Your task to perform on an android device: change the upload size in google photos Image 0: 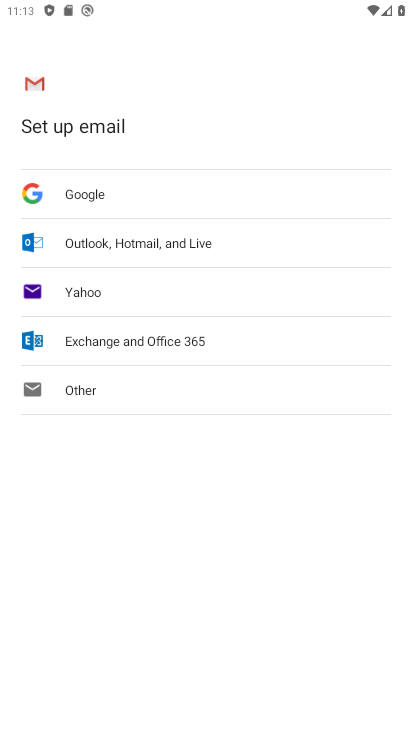
Step 0: press home button
Your task to perform on an android device: change the upload size in google photos Image 1: 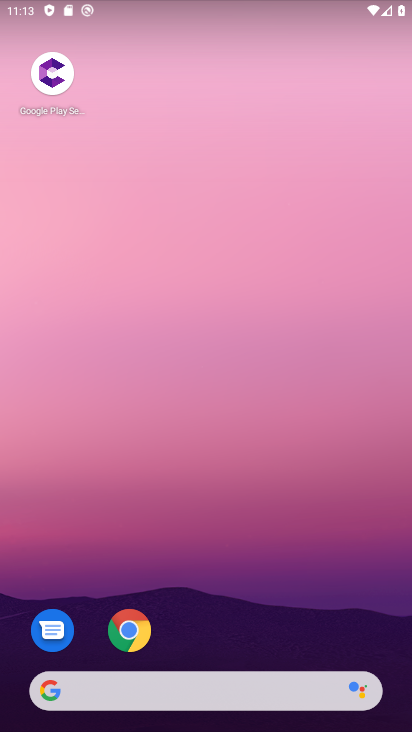
Step 1: drag from (284, 471) to (14, 293)
Your task to perform on an android device: change the upload size in google photos Image 2: 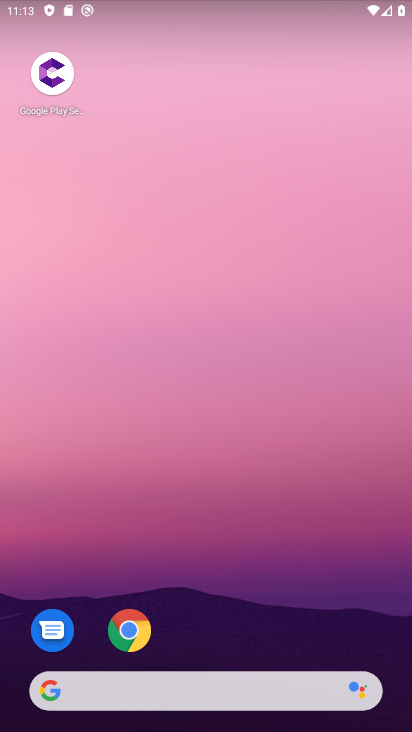
Step 2: drag from (244, 589) to (171, 5)
Your task to perform on an android device: change the upload size in google photos Image 3: 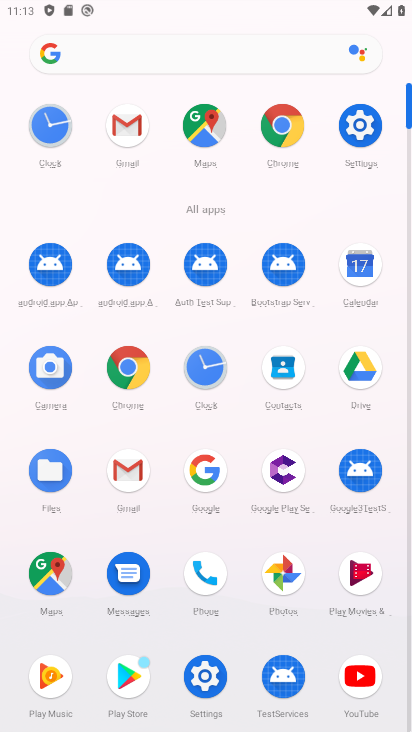
Step 3: click (279, 583)
Your task to perform on an android device: change the upload size in google photos Image 4: 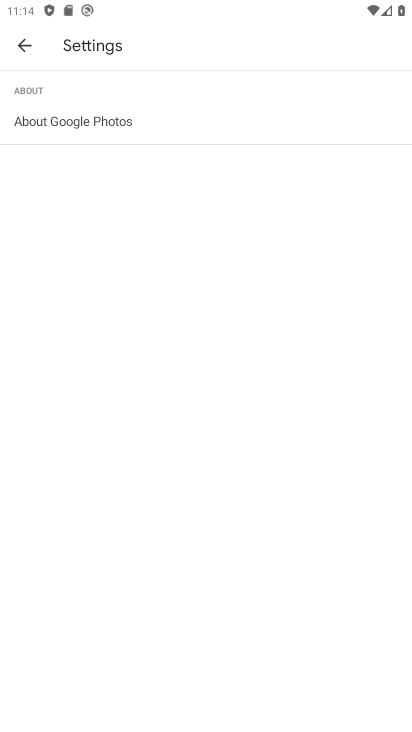
Step 4: click (27, 47)
Your task to perform on an android device: change the upload size in google photos Image 5: 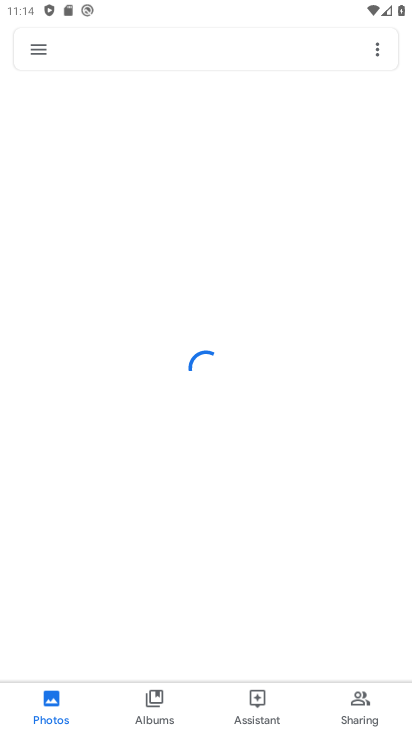
Step 5: click (35, 50)
Your task to perform on an android device: change the upload size in google photos Image 6: 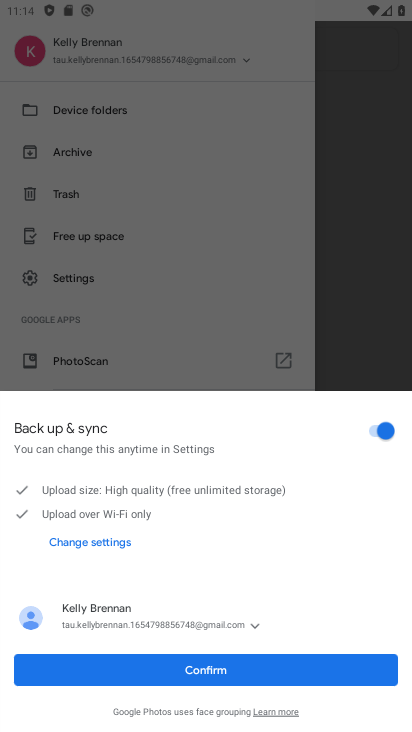
Step 6: click (250, 683)
Your task to perform on an android device: change the upload size in google photos Image 7: 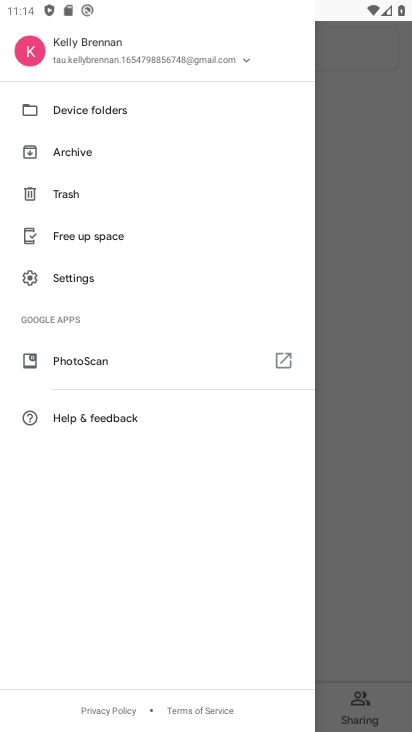
Step 7: click (69, 266)
Your task to perform on an android device: change the upload size in google photos Image 8: 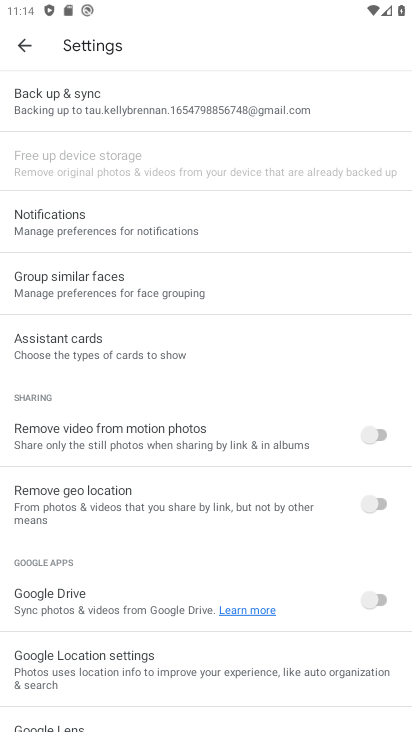
Step 8: click (28, 94)
Your task to perform on an android device: change the upload size in google photos Image 9: 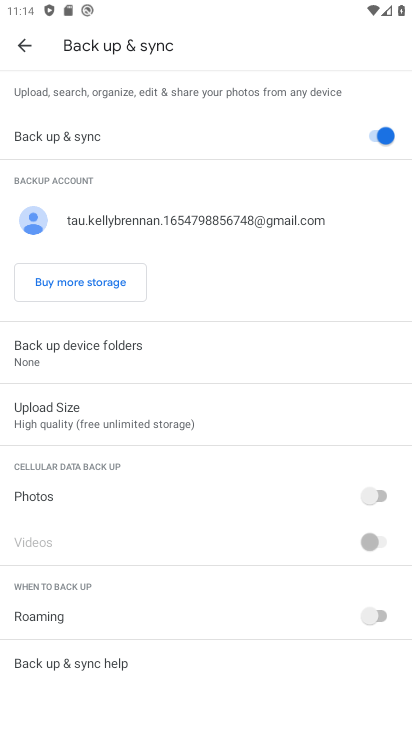
Step 9: click (77, 429)
Your task to perform on an android device: change the upload size in google photos Image 10: 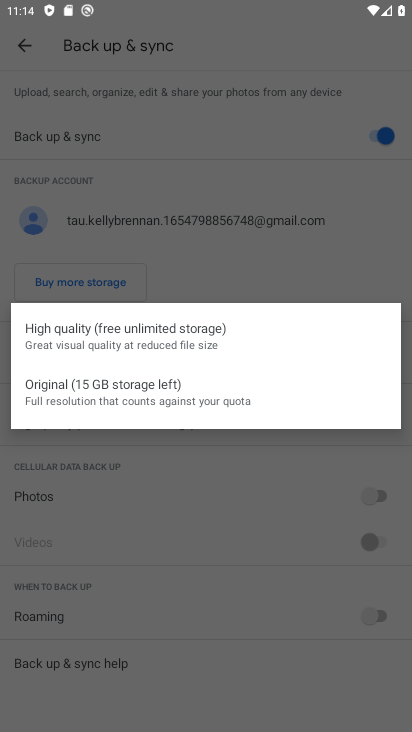
Step 10: click (134, 409)
Your task to perform on an android device: change the upload size in google photos Image 11: 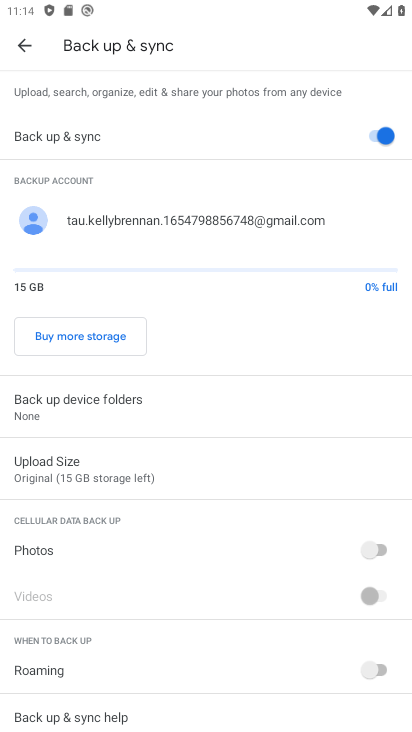
Step 11: task complete